Your task to perform on an android device: Check the news Image 0: 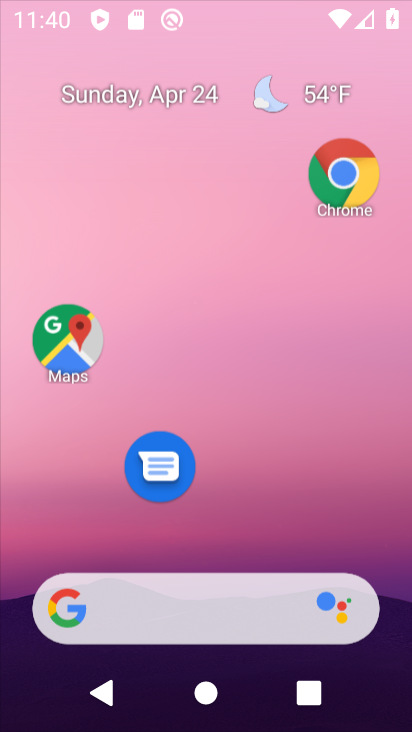
Step 0: click (196, 155)
Your task to perform on an android device: Check the news Image 1: 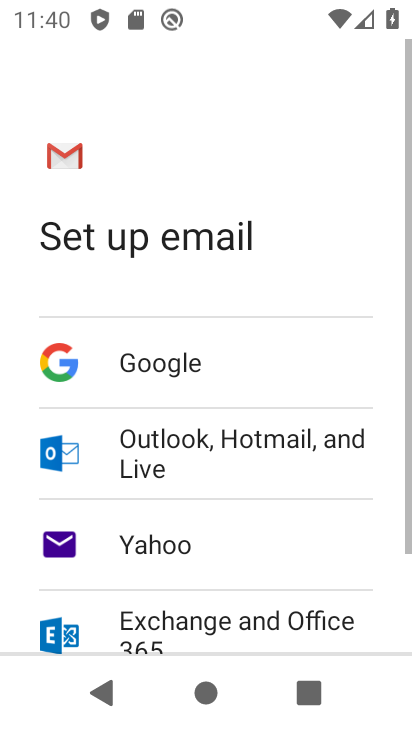
Step 1: drag from (242, 558) to (273, 130)
Your task to perform on an android device: Check the news Image 2: 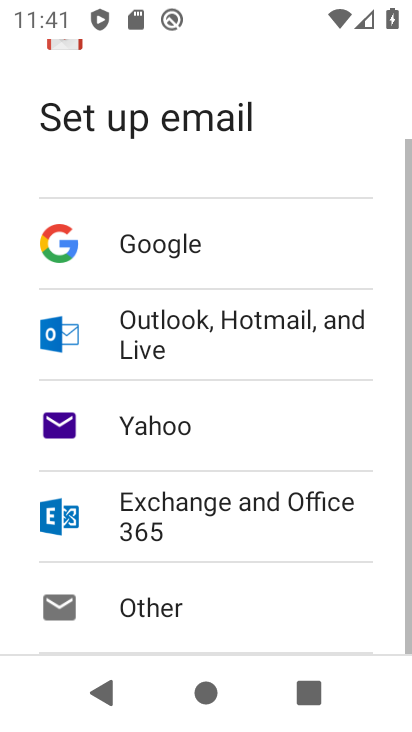
Step 2: press home button
Your task to perform on an android device: Check the news Image 3: 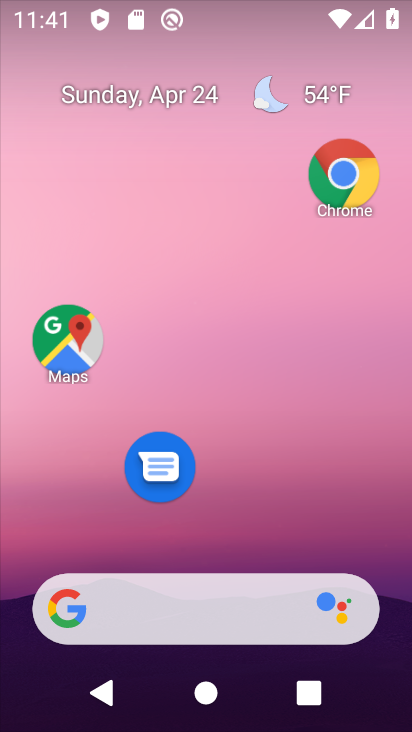
Step 3: drag from (231, 458) to (221, 51)
Your task to perform on an android device: Check the news Image 4: 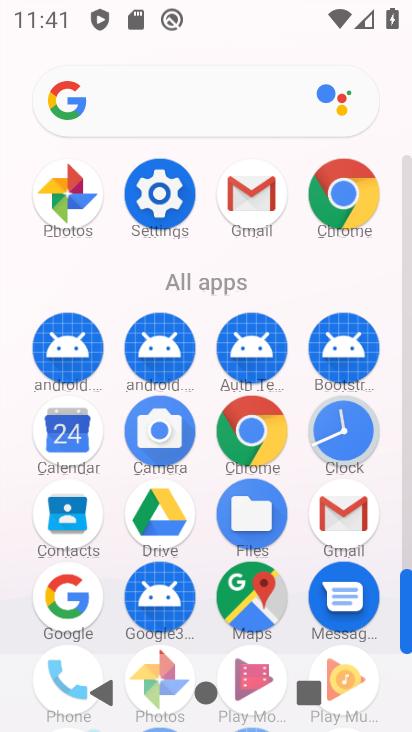
Step 4: click (141, 95)
Your task to perform on an android device: Check the news Image 5: 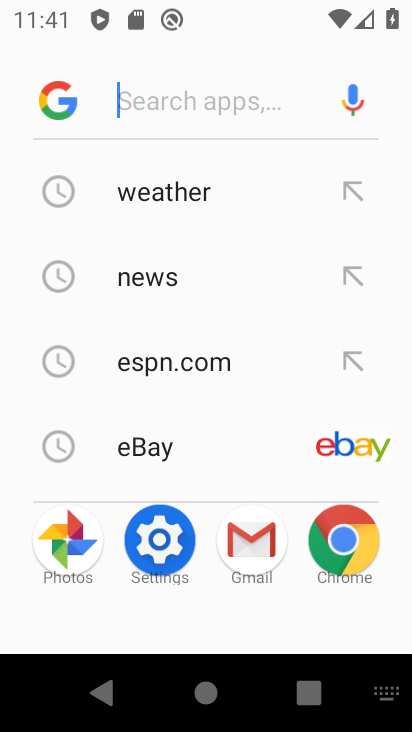
Step 5: click (199, 278)
Your task to perform on an android device: Check the news Image 6: 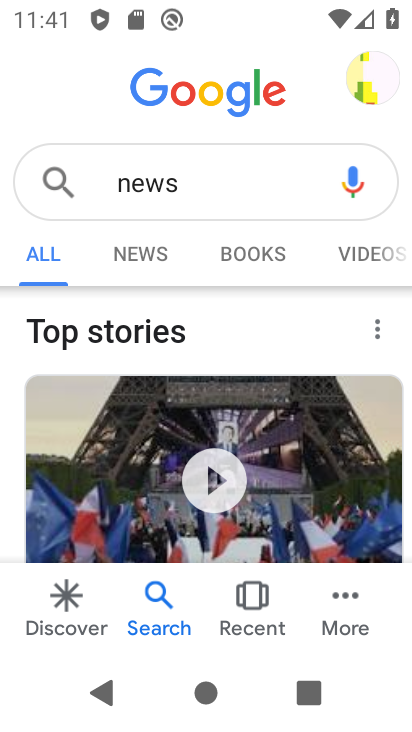
Step 6: drag from (308, 463) to (351, 157)
Your task to perform on an android device: Check the news Image 7: 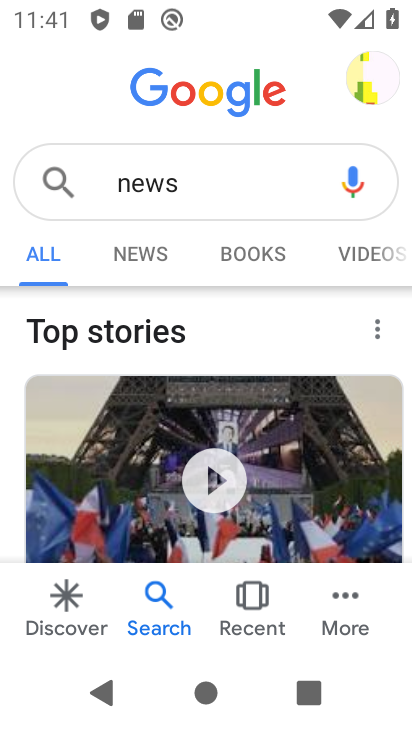
Step 7: drag from (303, 423) to (296, 82)
Your task to perform on an android device: Check the news Image 8: 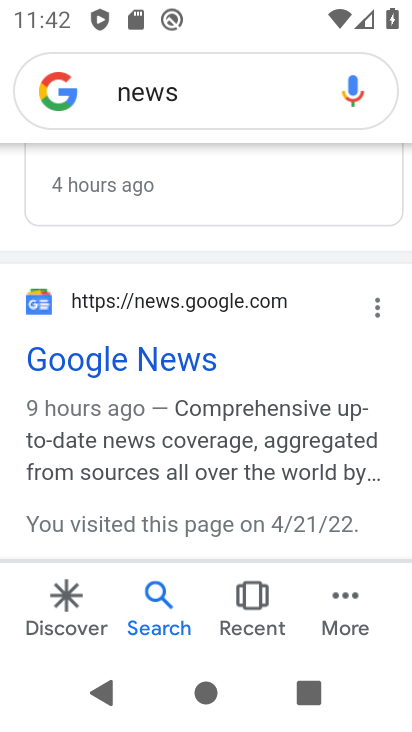
Step 8: click (112, 350)
Your task to perform on an android device: Check the news Image 9: 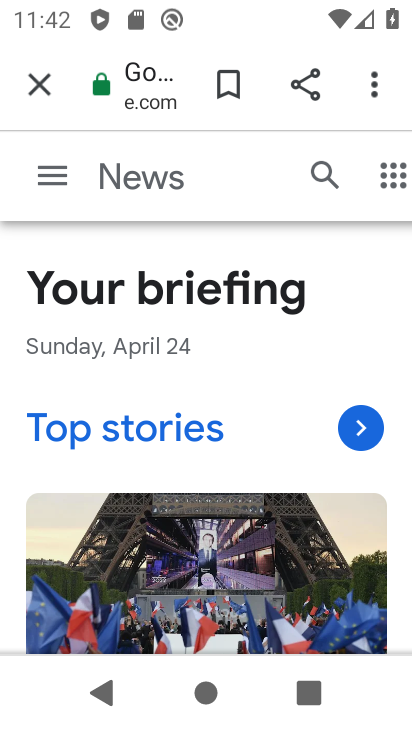
Step 9: task complete